Your task to perform on an android device: check out phone information Image 0: 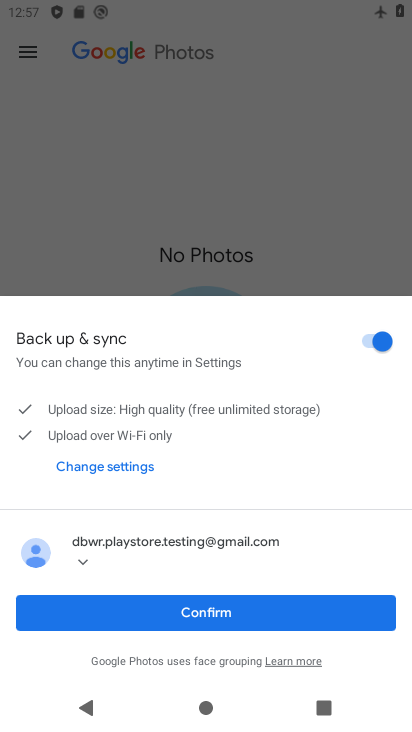
Step 0: press home button
Your task to perform on an android device: check out phone information Image 1: 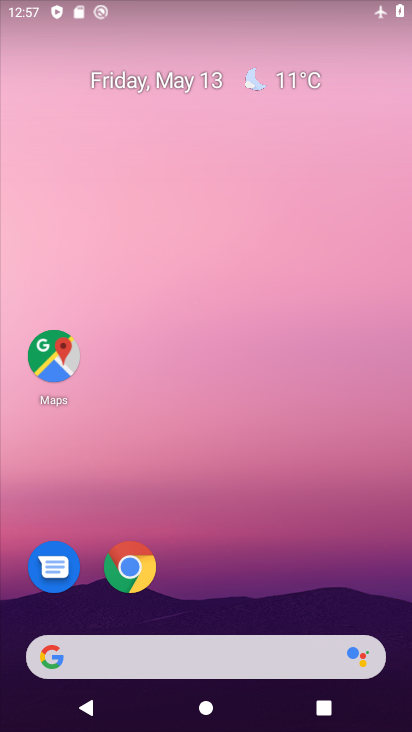
Step 1: drag from (223, 402) to (255, 154)
Your task to perform on an android device: check out phone information Image 2: 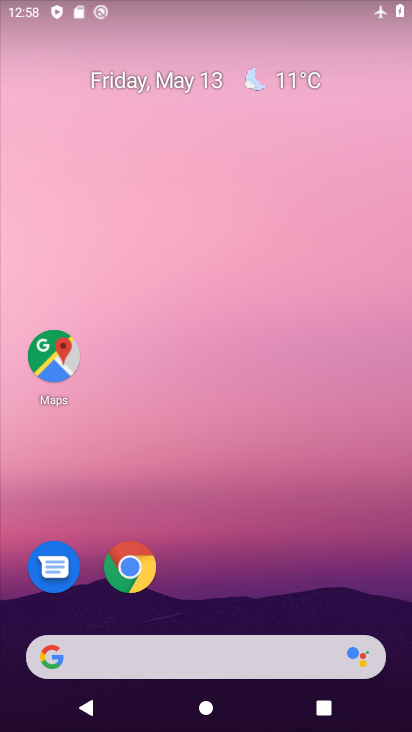
Step 2: drag from (201, 584) to (243, 134)
Your task to perform on an android device: check out phone information Image 3: 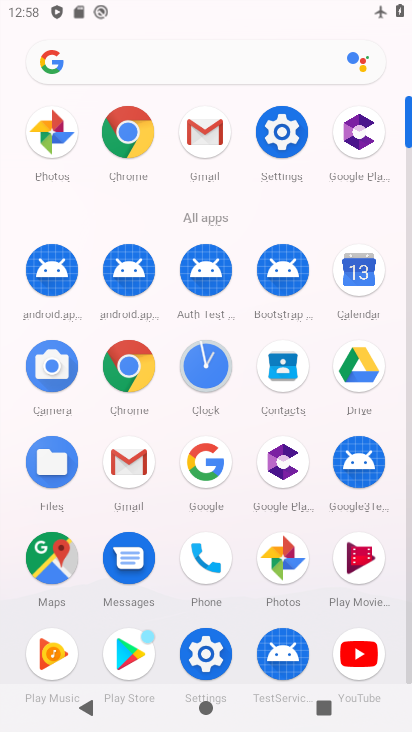
Step 3: click (202, 652)
Your task to perform on an android device: check out phone information Image 4: 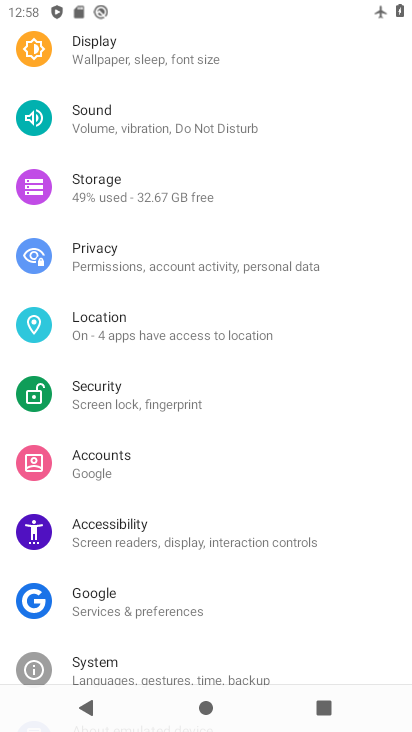
Step 4: drag from (171, 646) to (233, 201)
Your task to perform on an android device: check out phone information Image 5: 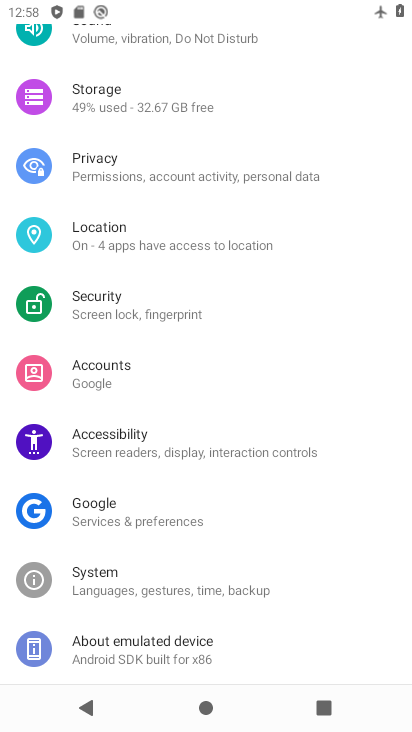
Step 5: click (123, 652)
Your task to perform on an android device: check out phone information Image 6: 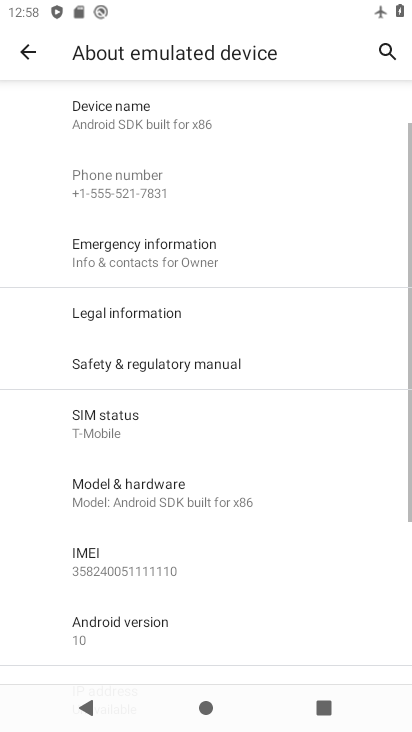
Step 6: task complete